Your task to perform on an android device: Open calendar and show me the first week of next month Image 0: 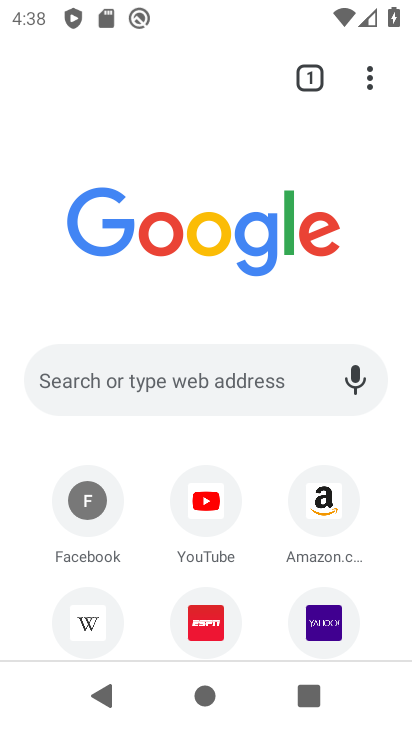
Step 0: press home button
Your task to perform on an android device: Open calendar and show me the first week of next month Image 1: 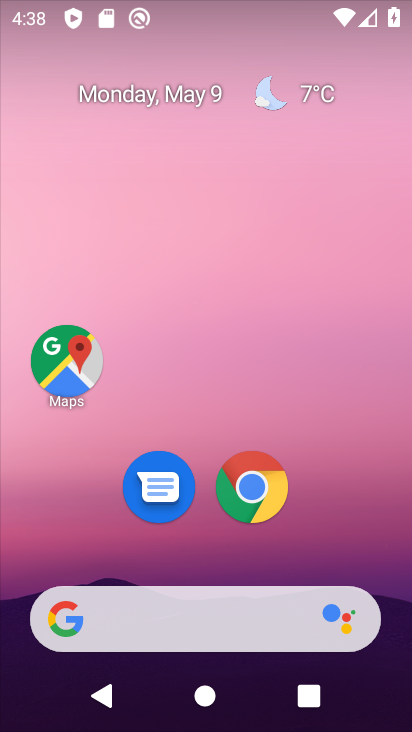
Step 1: drag from (223, 537) to (267, 131)
Your task to perform on an android device: Open calendar and show me the first week of next month Image 2: 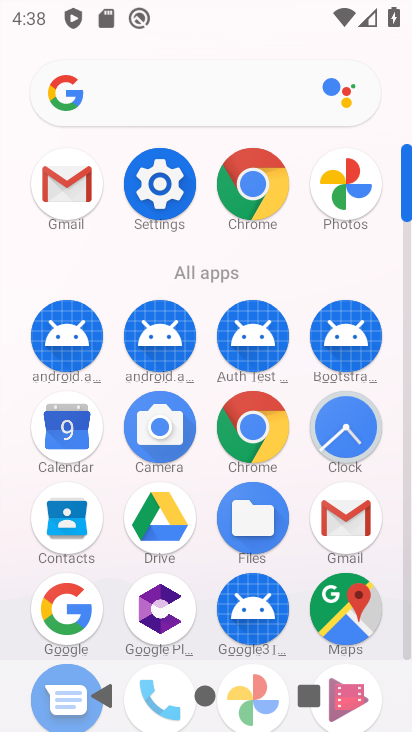
Step 2: drag from (200, 541) to (197, 371)
Your task to perform on an android device: Open calendar and show me the first week of next month Image 3: 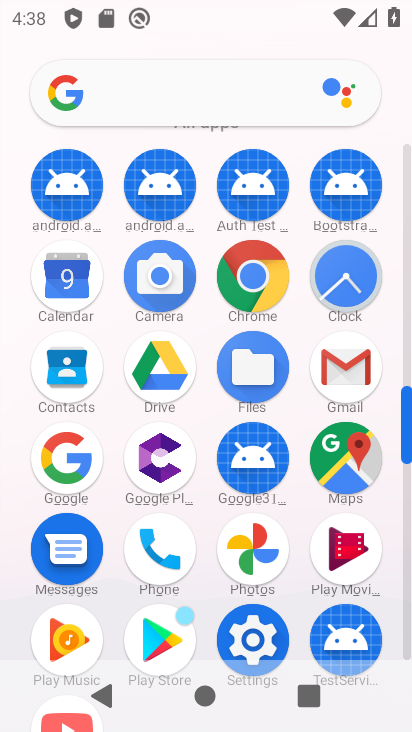
Step 3: click (68, 274)
Your task to perform on an android device: Open calendar and show me the first week of next month Image 4: 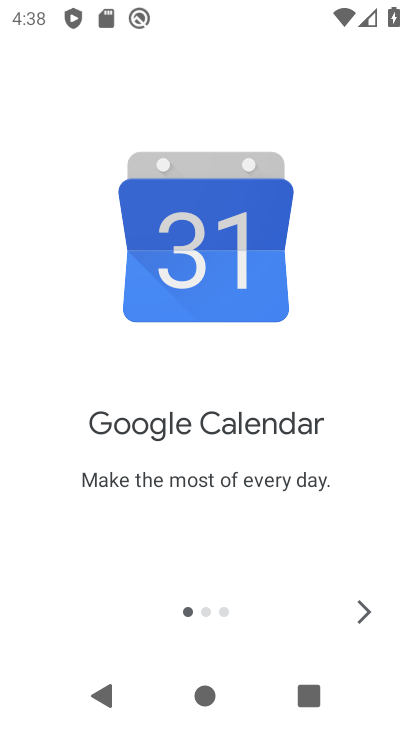
Step 4: click (366, 611)
Your task to perform on an android device: Open calendar and show me the first week of next month Image 5: 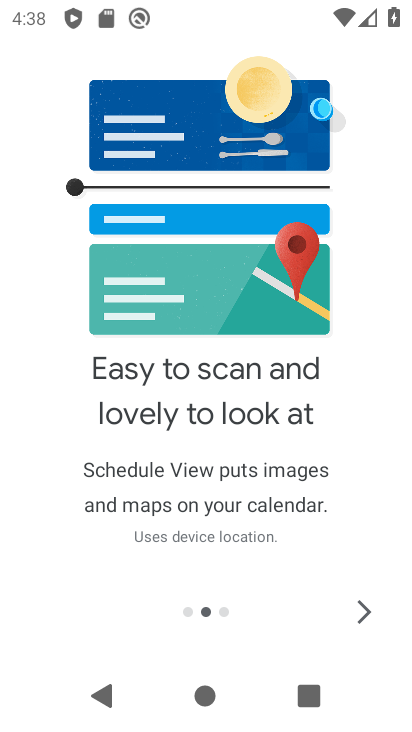
Step 5: click (366, 611)
Your task to perform on an android device: Open calendar and show me the first week of next month Image 6: 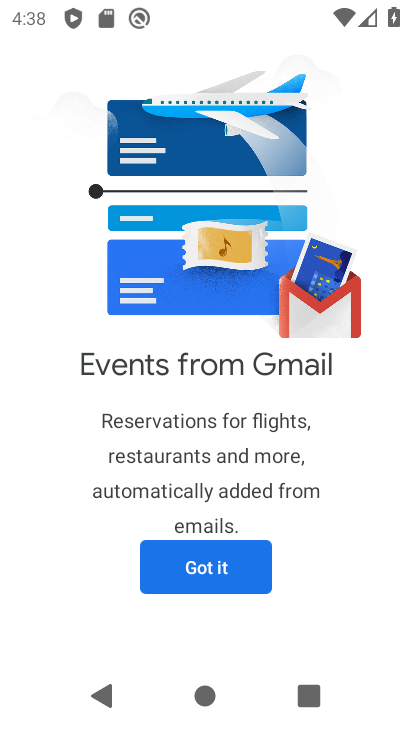
Step 6: click (208, 566)
Your task to perform on an android device: Open calendar and show me the first week of next month Image 7: 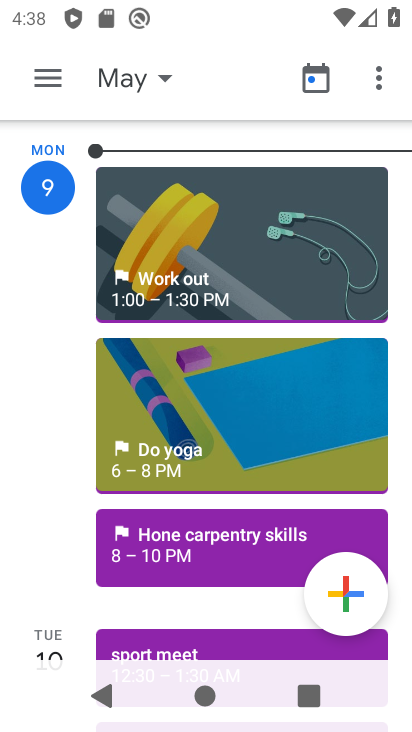
Step 7: click (155, 88)
Your task to perform on an android device: Open calendar and show me the first week of next month Image 8: 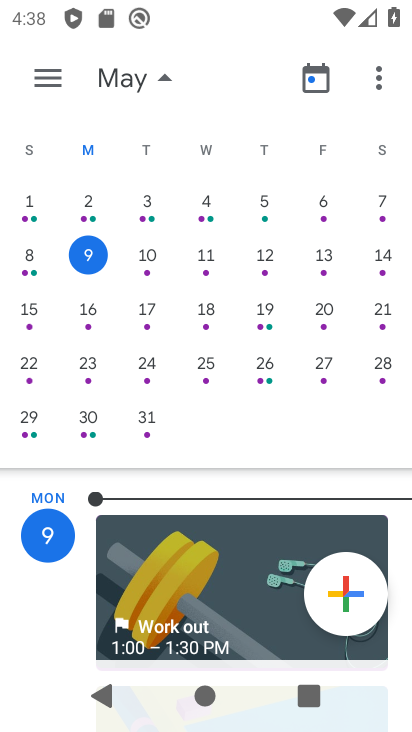
Step 8: drag from (335, 221) to (6, 150)
Your task to perform on an android device: Open calendar and show me the first week of next month Image 9: 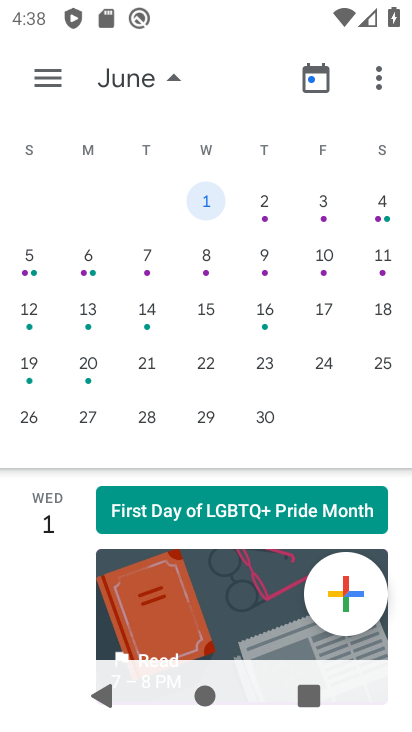
Step 9: click (48, 68)
Your task to perform on an android device: Open calendar and show me the first week of next month Image 10: 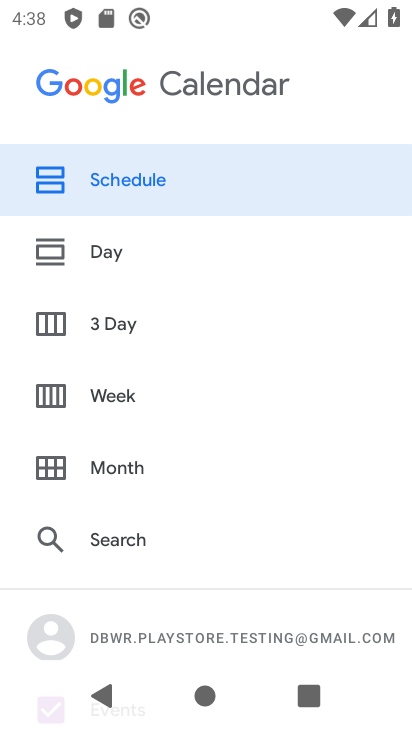
Step 10: click (108, 396)
Your task to perform on an android device: Open calendar and show me the first week of next month Image 11: 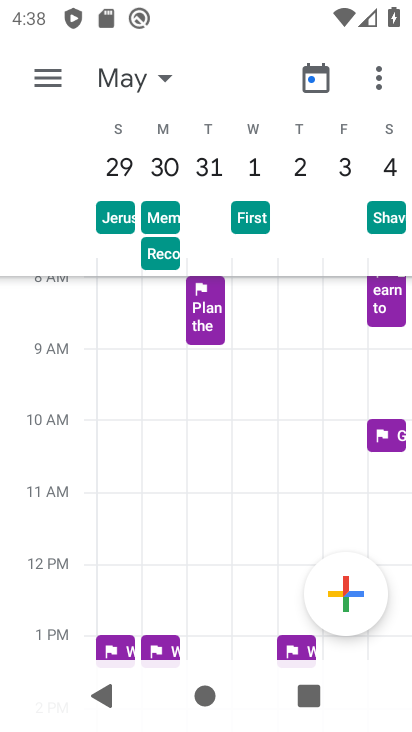
Step 11: task complete